Your task to perform on an android device: open sync settings in chrome Image 0: 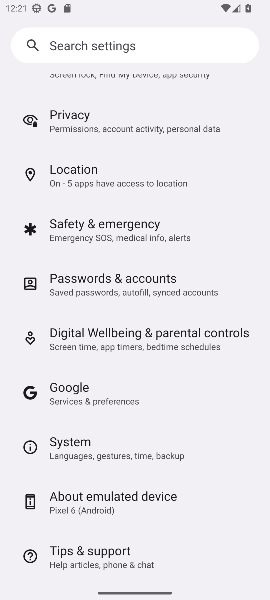
Step 0: press home button
Your task to perform on an android device: open sync settings in chrome Image 1: 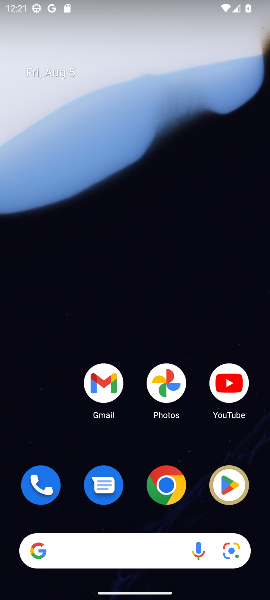
Step 1: click (167, 480)
Your task to perform on an android device: open sync settings in chrome Image 2: 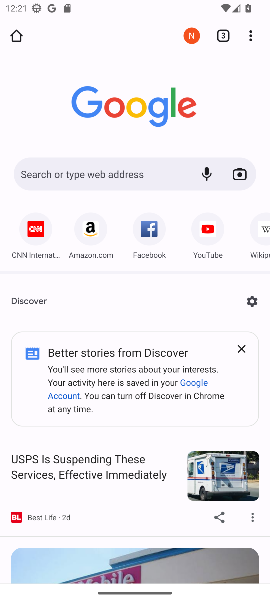
Step 2: click (251, 31)
Your task to perform on an android device: open sync settings in chrome Image 3: 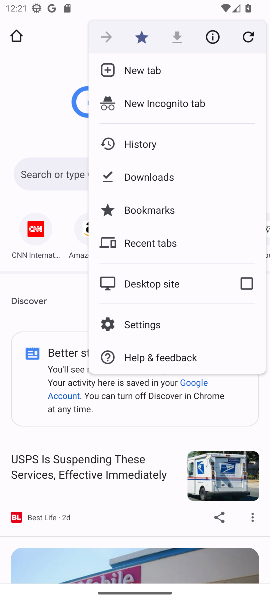
Step 3: click (131, 317)
Your task to perform on an android device: open sync settings in chrome Image 4: 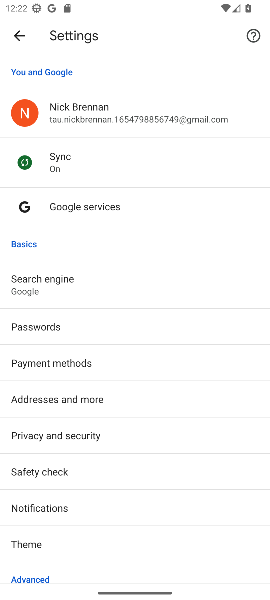
Step 4: click (62, 160)
Your task to perform on an android device: open sync settings in chrome Image 5: 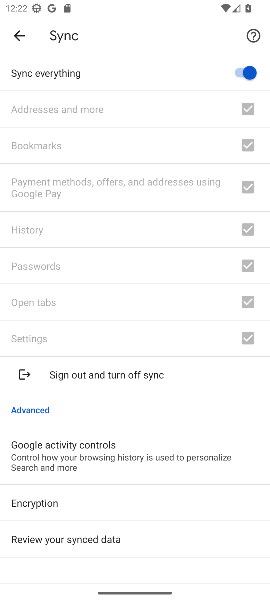
Step 5: task complete